Your task to perform on an android device: change your default location settings in chrome Image 0: 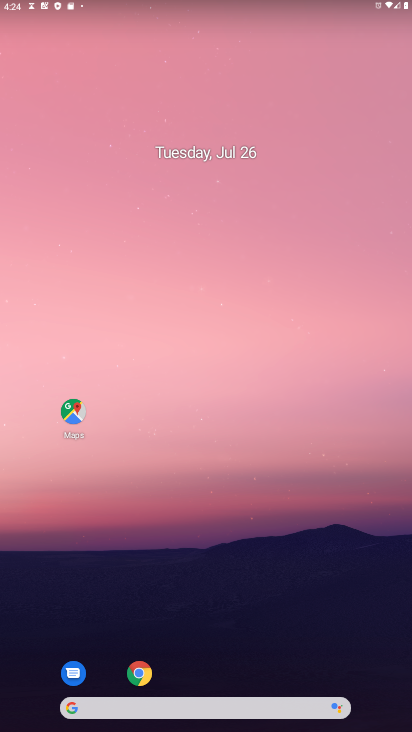
Step 0: click (139, 673)
Your task to perform on an android device: change your default location settings in chrome Image 1: 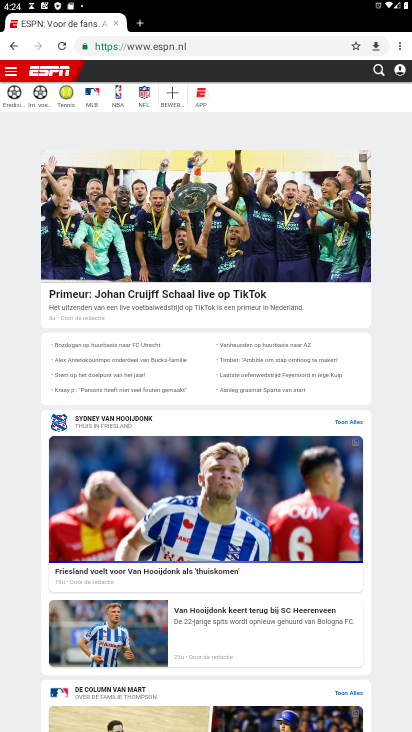
Step 1: click (402, 44)
Your task to perform on an android device: change your default location settings in chrome Image 2: 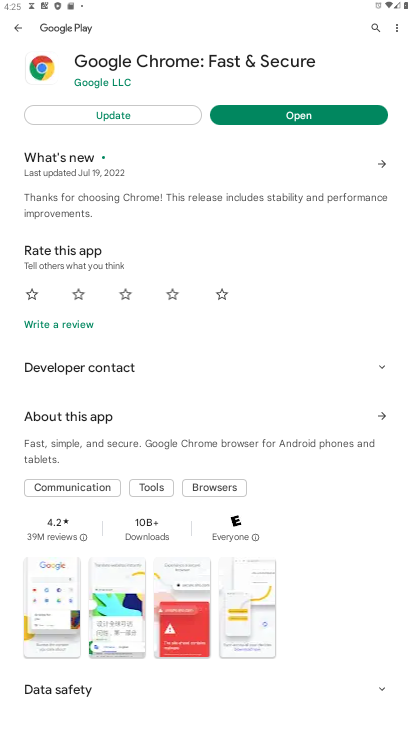
Step 2: press back button
Your task to perform on an android device: change your default location settings in chrome Image 3: 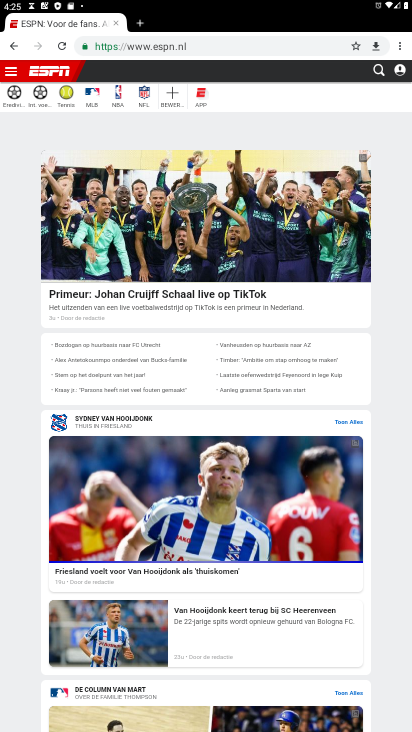
Step 3: click (398, 46)
Your task to perform on an android device: change your default location settings in chrome Image 4: 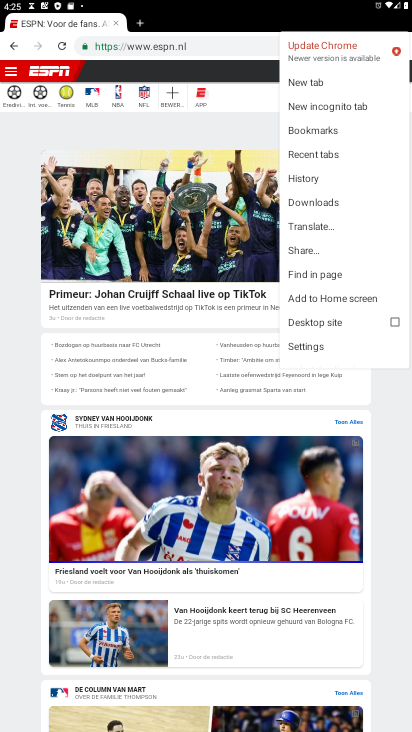
Step 4: click (309, 345)
Your task to perform on an android device: change your default location settings in chrome Image 5: 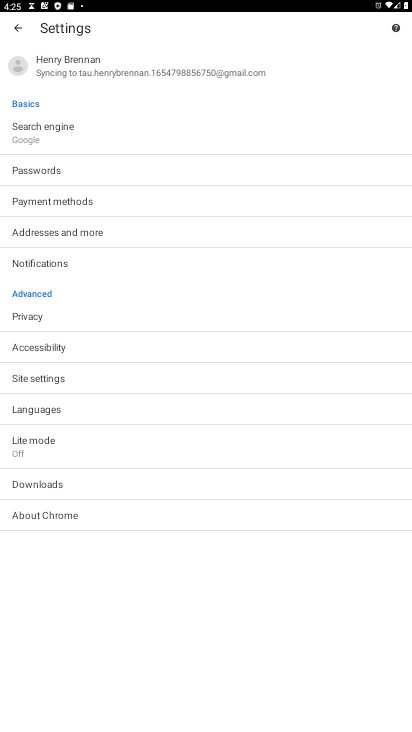
Step 5: click (49, 379)
Your task to perform on an android device: change your default location settings in chrome Image 6: 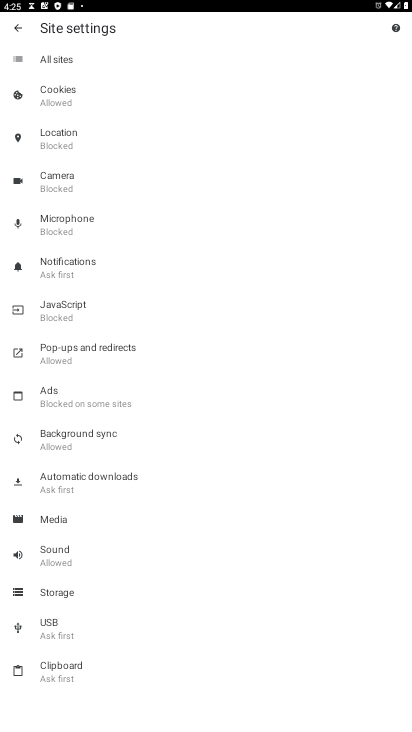
Step 6: click (54, 145)
Your task to perform on an android device: change your default location settings in chrome Image 7: 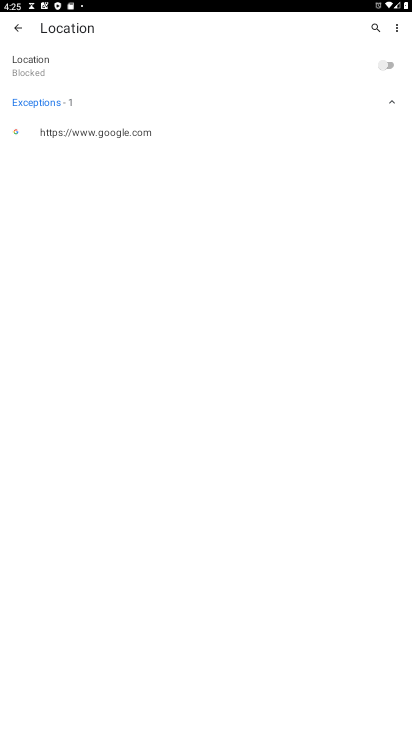
Step 7: click (383, 66)
Your task to perform on an android device: change your default location settings in chrome Image 8: 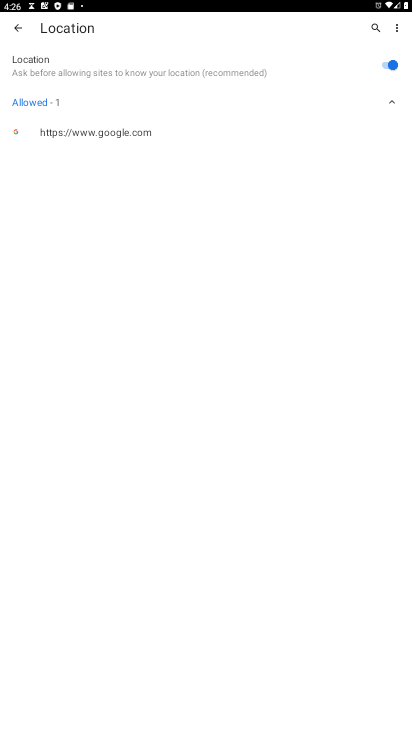
Step 8: task complete